Your task to perform on an android device: change the clock display to digital Image 0: 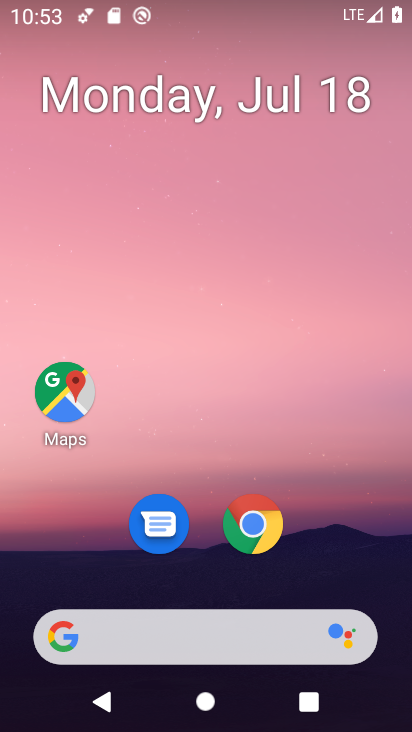
Step 0: drag from (284, 463) to (248, 22)
Your task to perform on an android device: change the clock display to digital Image 1: 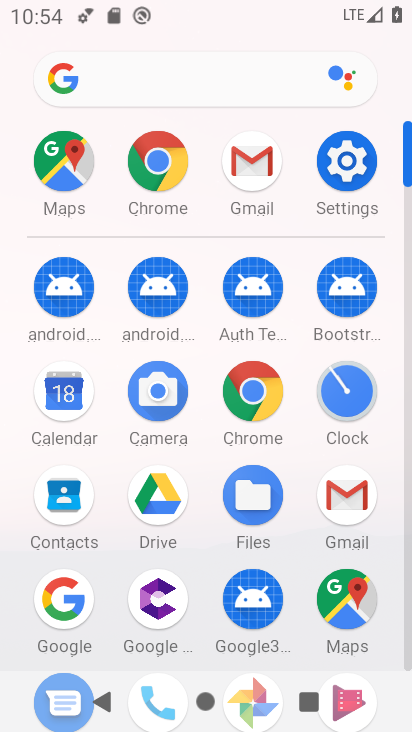
Step 1: click (336, 393)
Your task to perform on an android device: change the clock display to digital Image 2: 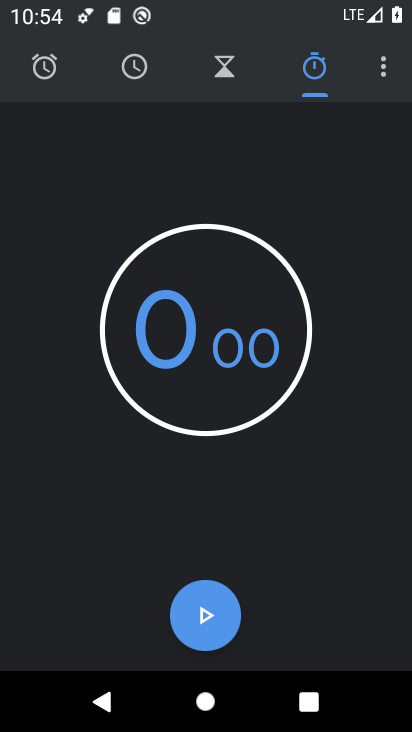
Step 2: click (137, 66)
Your task to perform on an android device: change the clock display to digital Image 3: 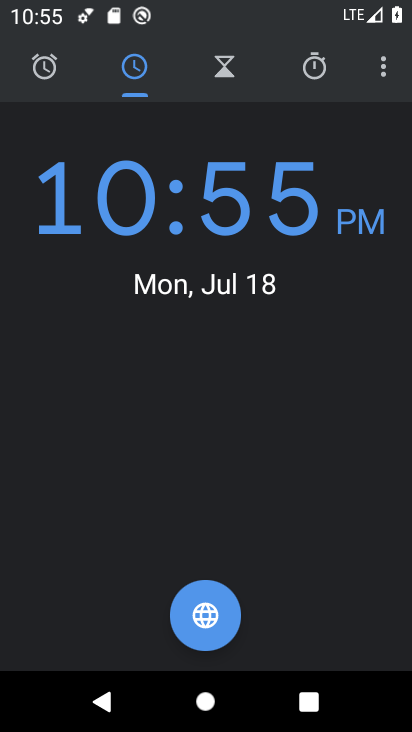
Step 3: task complete